Your task to perform on an android device: Go to calendar. Show me events next week Image 0: 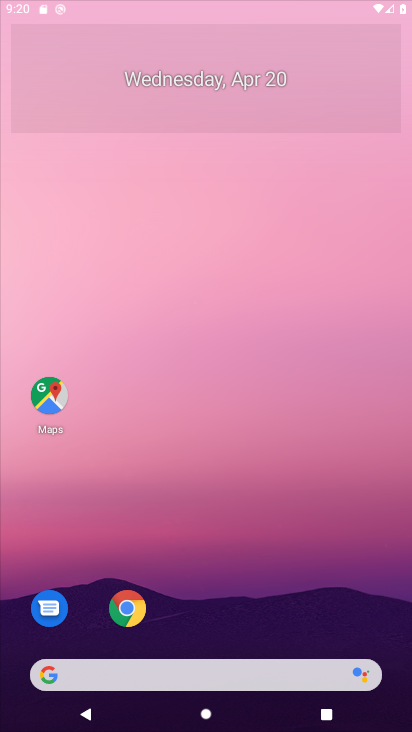
Step 0: click (329, 9)
Your task to perform on an android device: Go to calendar. Show me events next week Image 1: 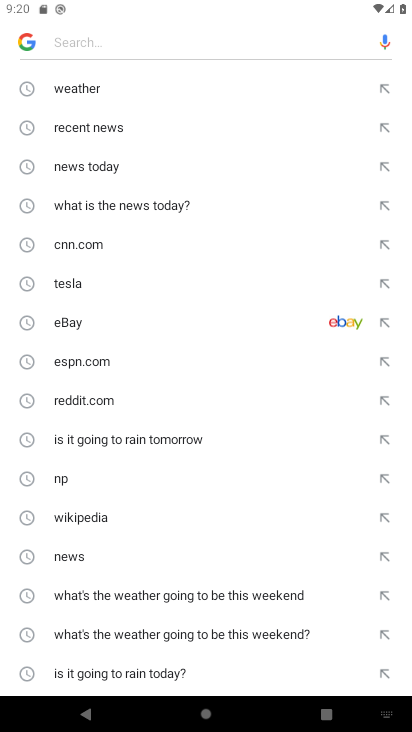
Step 1: press home button
Your task to perform on an android device: Go to calendar. Show me events next week Image 2: 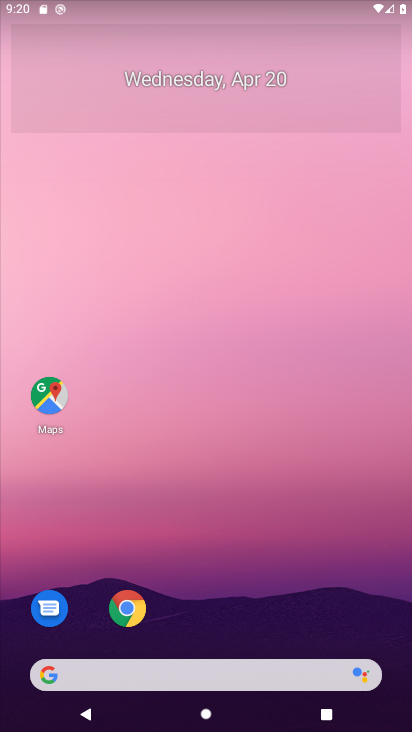
Step 2: drag from (215, 604) to (274, 116)
Your task to perform on an android device: Go to calendar. Show me events next week Image 3: 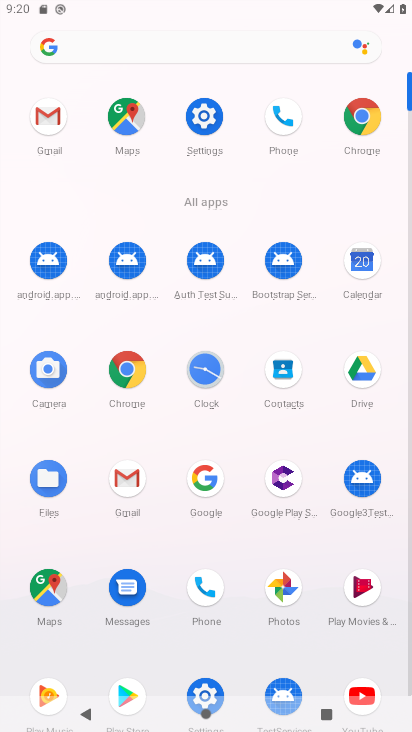
Step 3: click (374, 272)
Your task to perform on an android device: Go to calendar. Show me events next week Image 4: 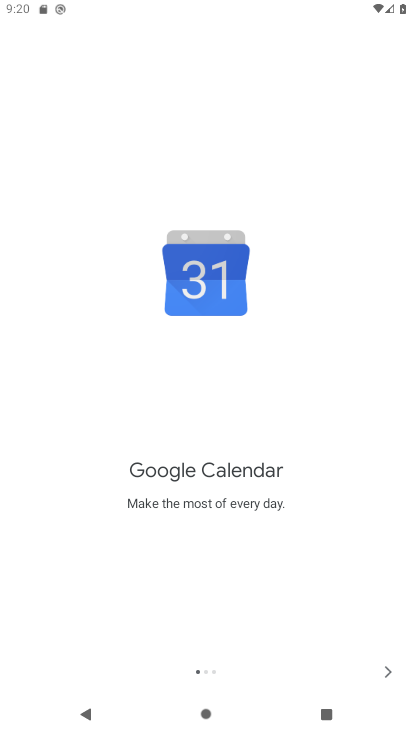
Step 4: click (387, 662)
Your task to perform on an android device: Go to calendar. Show me events next week Image 5: 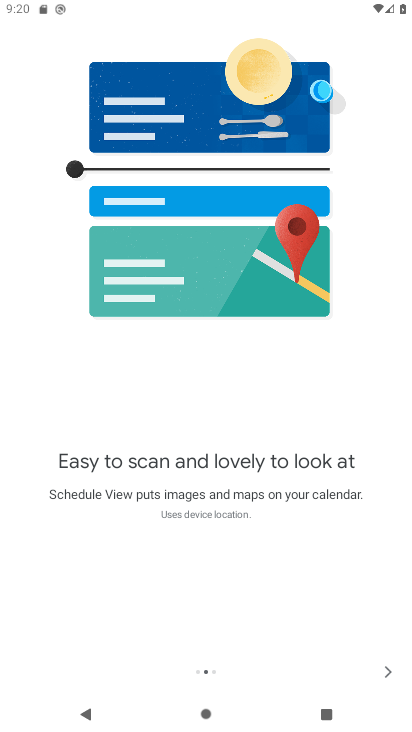
Step 5: click (387, 662)
Your task to perform on an android device: Go to calendar. Show me events next week Image 6: 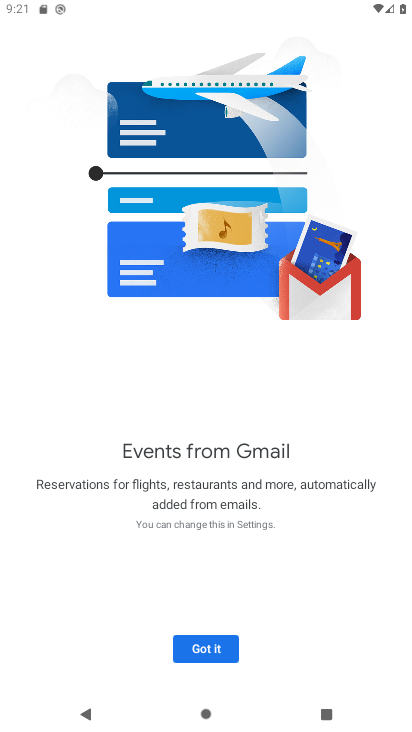
Step 6: click (203, 639)
Your task to perform on an android device: Go to calendar. Show me events next week Image 7: 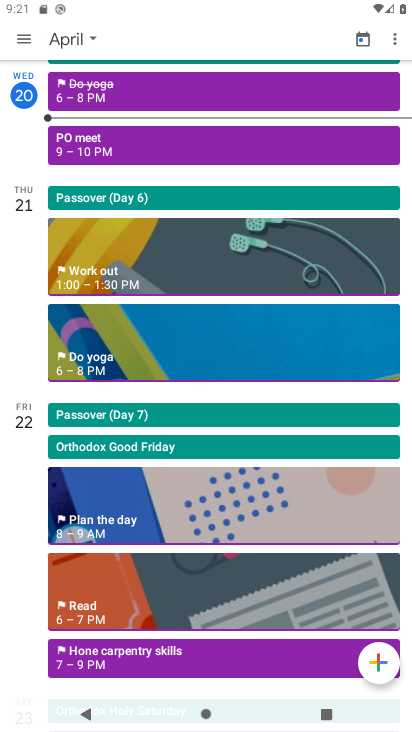
Step 7: click (27, 38)
Your task to perform on an android device: Go to calendar. Show me events next week Image 8: 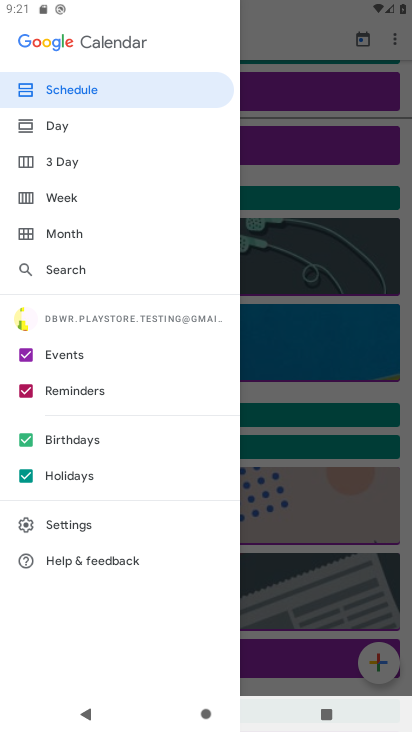
Step 8: click (31, 469)
Your task to perform on an android device: Go to calendar. Show me events next week Image 9: 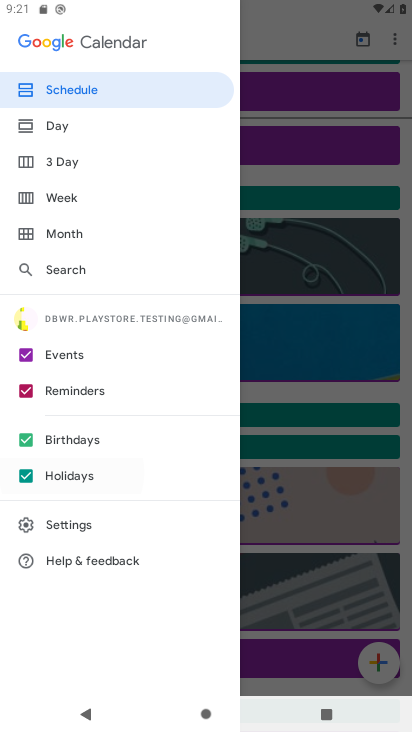
Step 9: click (27, 432)
Your task to perform on an android device: Go to calendar. Show me events next week Image 10: 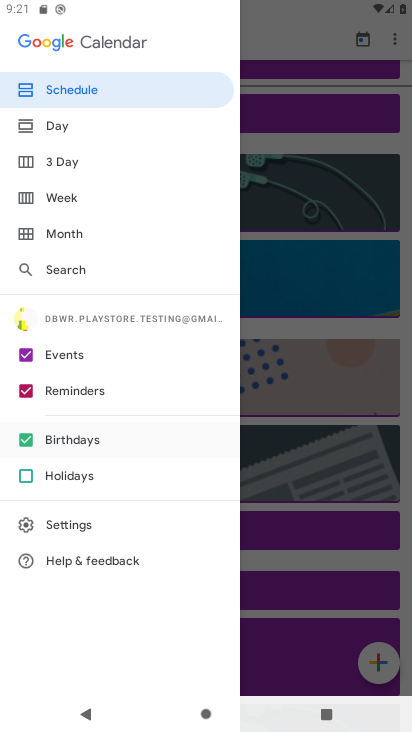
Step 10: click (26, 378)
Your task to perform on an android device: Go to calendar. Show me events next week Image 11: 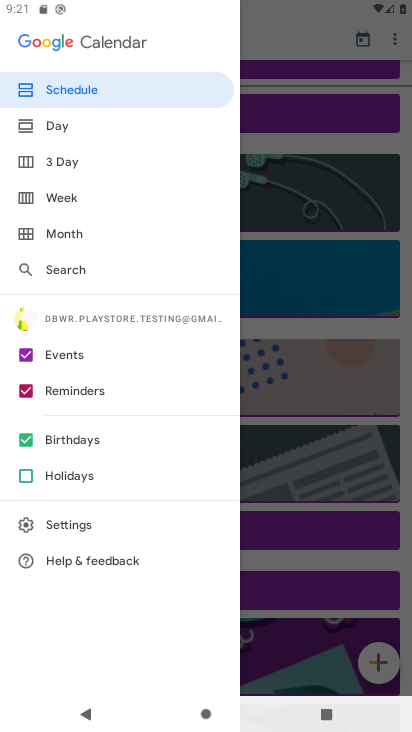
Step 11: click (21, 435)
Your task to perform on an android device: Go to calendar. Show me events next week Image 12: 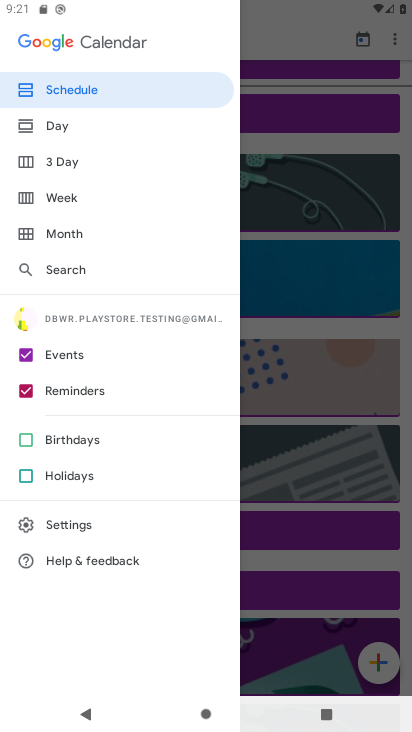
Step 12: click (24, 388)
Your task to perform on an android device: Go to calendar. Show me events next week Image 13: 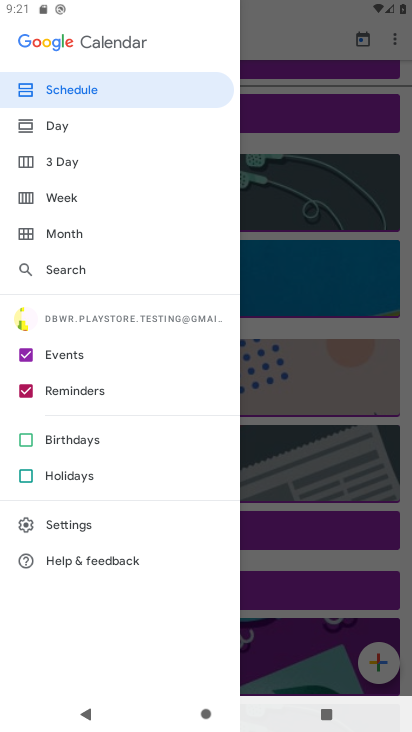
Step 13: click (83, 197)
Your task to perform on an android device: Go to calendar. Show me events next week Image 14: 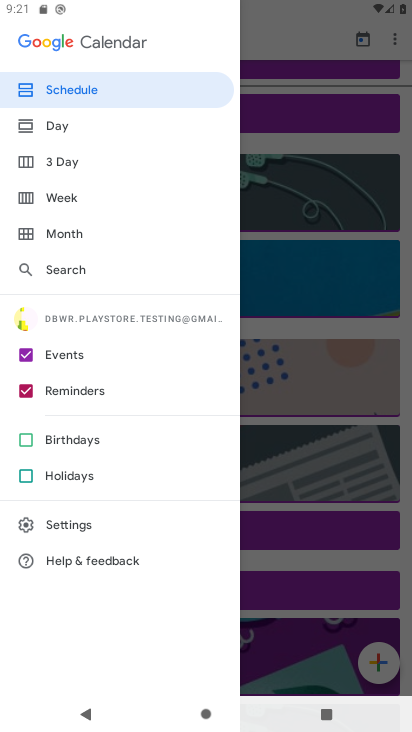
Step 14: click (66, 196)
Your task to perform on an android device: Go to calendar. Show me events next week Image 15: 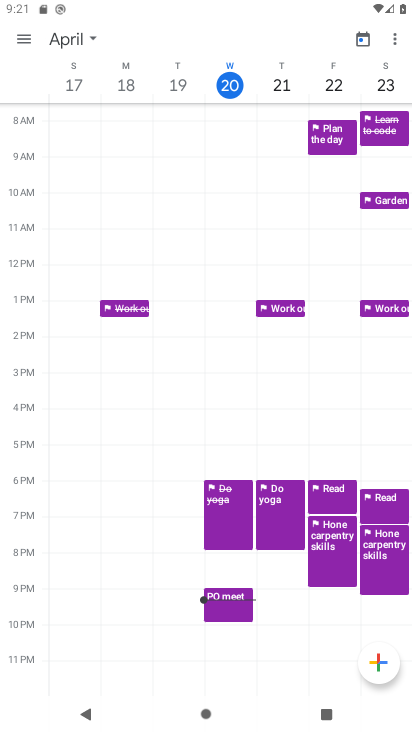
Step 15: task complete